Your task to perform on an android device: turn on notifications settings in the gmail app Image 0: 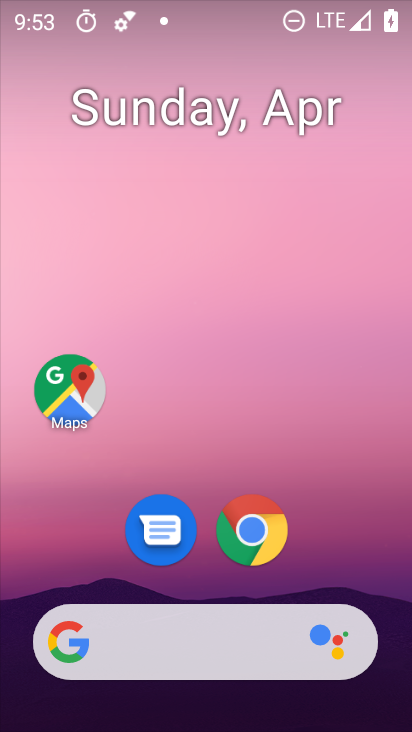
Step 0: drag from (386, 541) to (410, 630)
Your task to perform on an android device: turn on notifications settings in the gmail app Image 1: 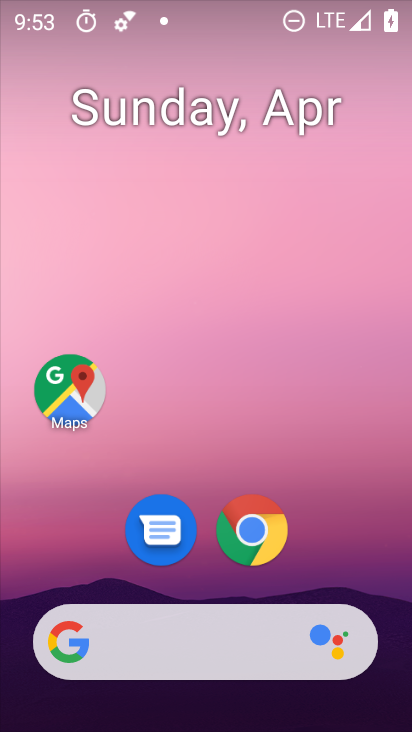
Step 1: drag from (400, 627) to (411, 127)
Your task to perform on an android device: turn on notifications settings in the gmail app Image 2: 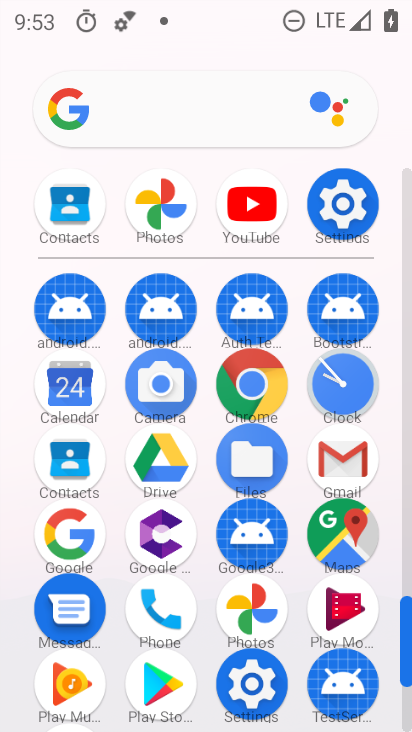
Step 2: click (336, 462)
Your task to perform on an android device: turn on notifications settings in the gmail app Image 3: 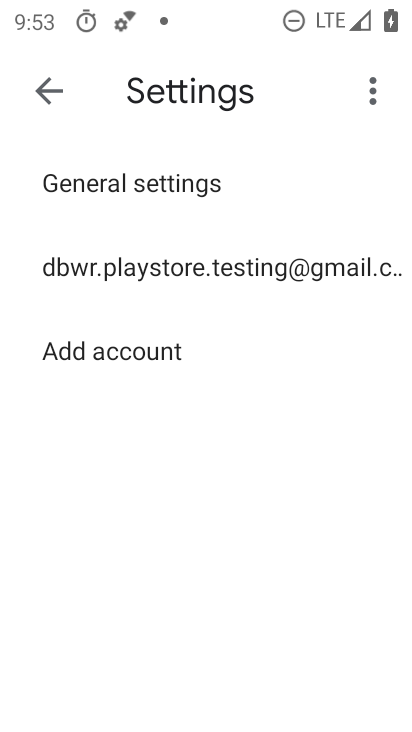
Step 3: click (120, 189)
Your task to perform on an android device: turn on notifications settings in the gmail app Image 4: 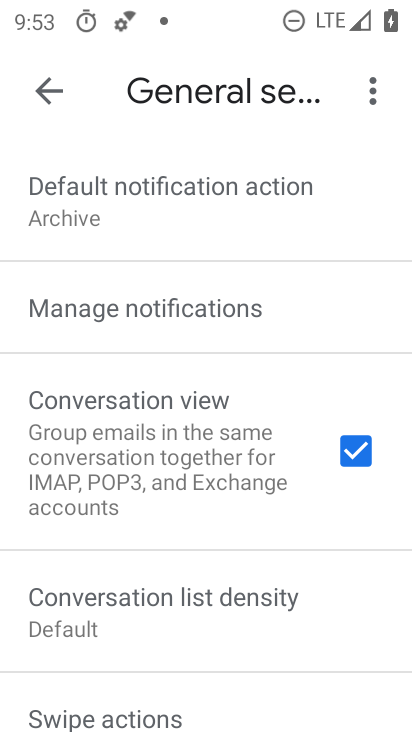
Step 4: click (112, 333)
Your task to perform on an android device: turn on notifications settings in the gmail app Image 5: 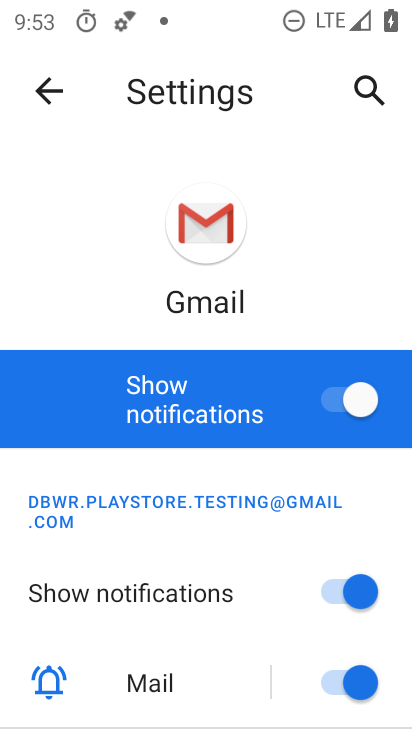
Step 5: task complete